Your task to perform on an android device: turn on improve location accuracy Image 0: 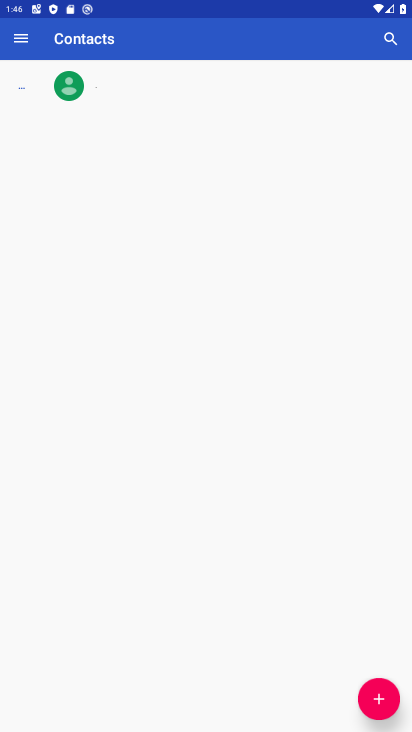
Step 0: press home button
Your task to perform on an android device: turn on improve location accuracy Image 1: 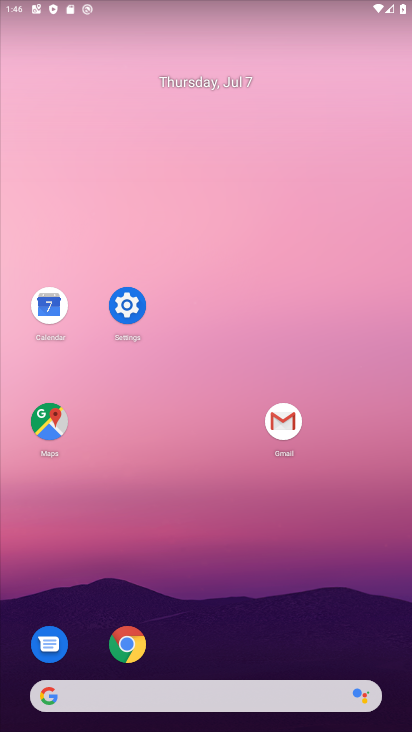
Step 1: click (121, 307)
Your task to perform on an android device: turn on improve location accuracy Image 2: 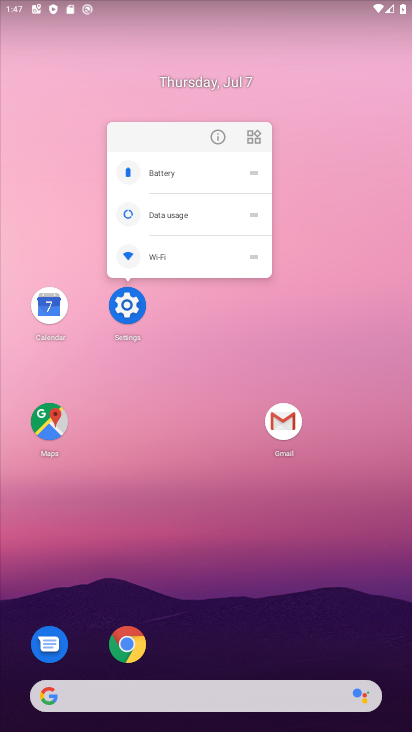
Step 2: click (121, 307)
Your task to perform on an android device: turn on improve location accuracy Image 3: 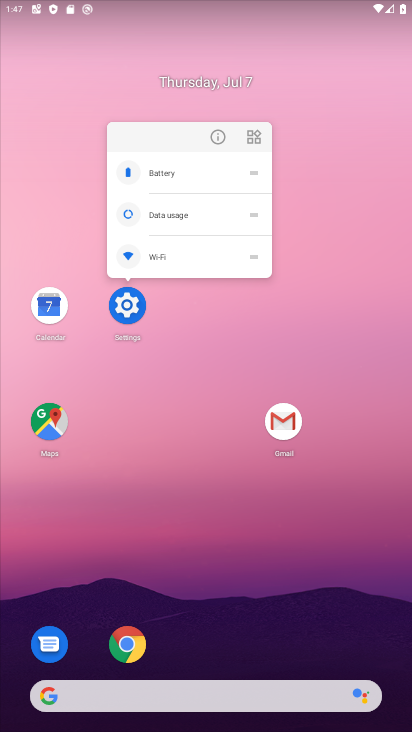
Step 3: click (114, 298)
Your task to perform on an android device: turn on improve location accuracy Image 4: 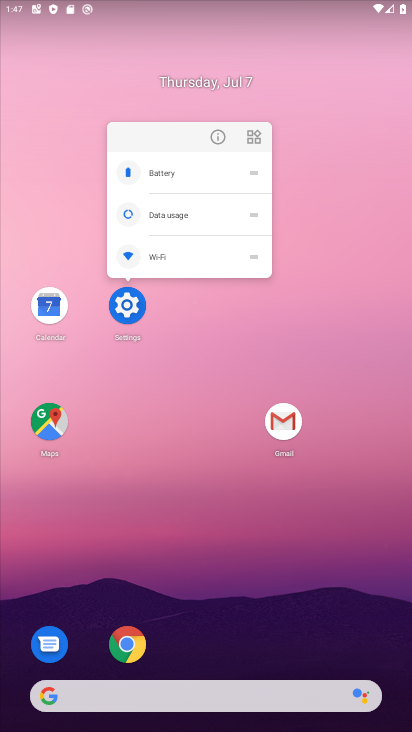
Step 4: click (117, 303)
Your task to perform on an android device: turn on improve location accuracy Image 5: 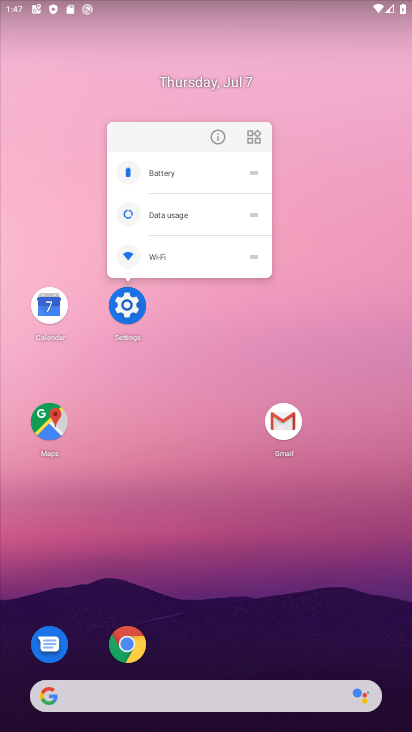
Step 5: click (117, 303)
Your task to perform on an android device: turn on improve location accuracy Image 6: 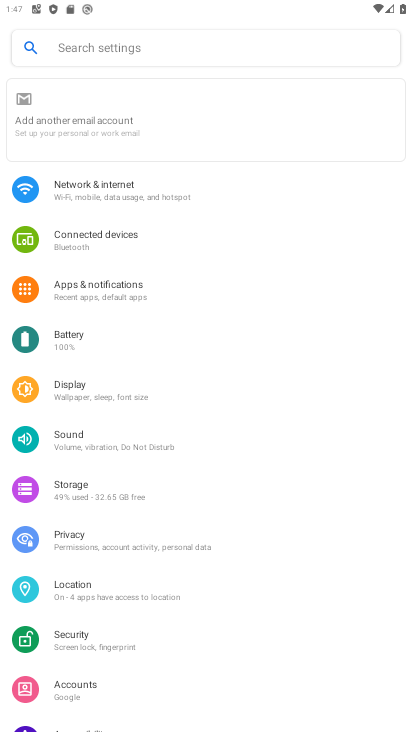
Step 6: click (128, 302)
Your task to perform on an android device: turn on improve location accuracy Image 7: 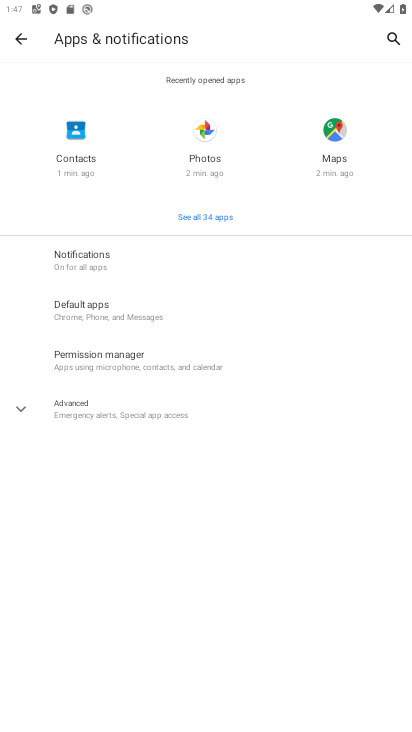
Step 7: click (15, 38)
Your task to perform on an android device: turn on improve location accuracy Image 8: 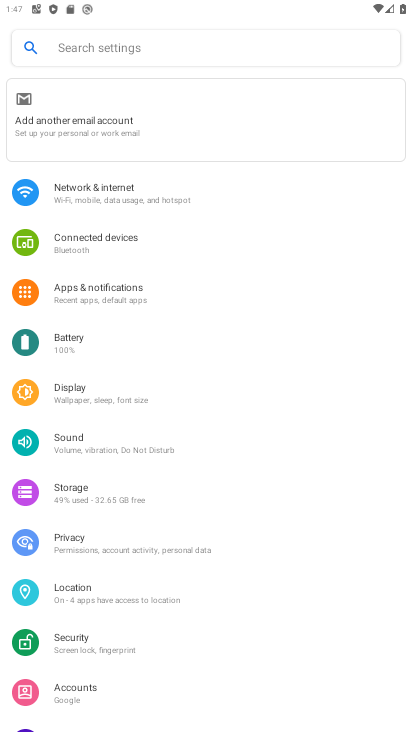
Step 8: click (74, 589)
Your task to perform on an android device: turn on improve location accuracy Image 9: 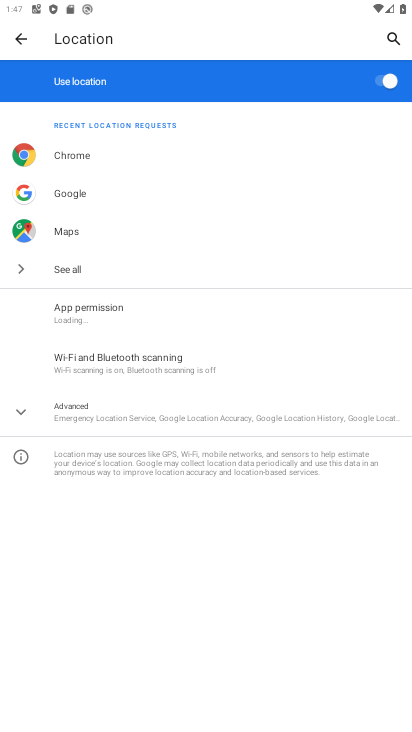
Step 9: click (50, 410)
Your task to perform on an android device: turn on improve location accuracy Image 10: 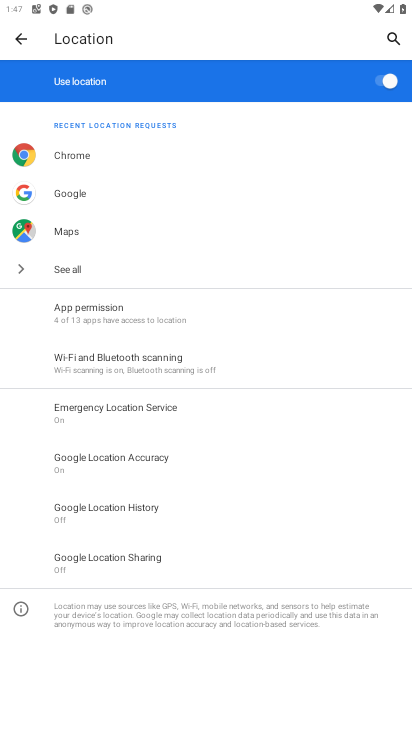
Step 10: click (103, 453)
Your task to perform on an android device: turn on improve location accuracy Image 11: 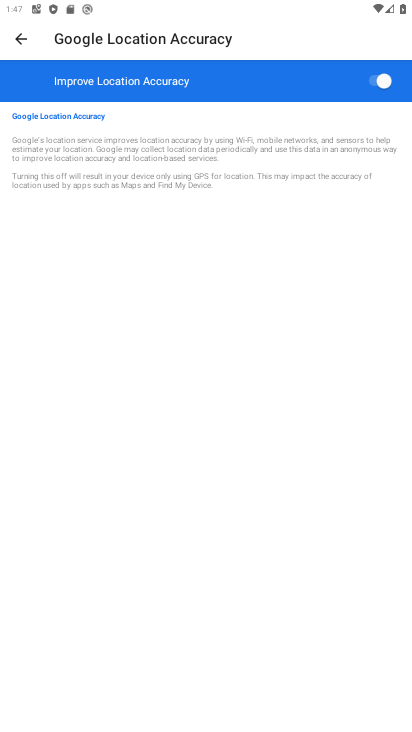
Step 11: task complete